Your task to perform on an android device: toggle data saver in the chrome app Image 0: 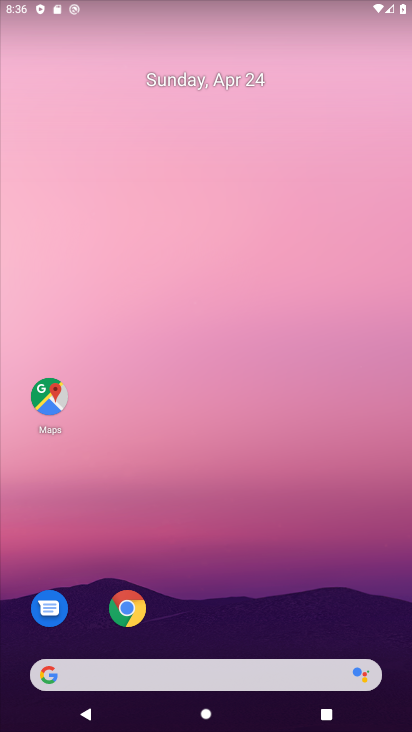
Step 0: click (121, 600)
Your task to perform on an android device: toggle data saver in the chrome app Image 1: 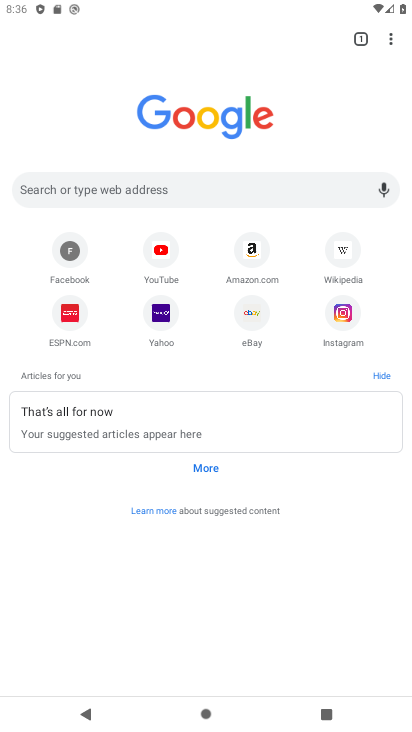
Step 1: drag from (390, 39) to (275, 322)
Your task to perform on an android device: toggle data saver in the chrome app Image 2: 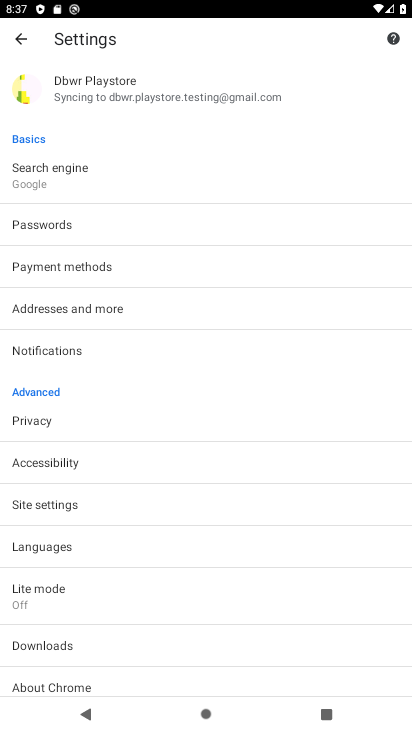
Step 2: click (65, 581)
Your task to perform on an android device: toggle data saver in the chrome app Image 3: 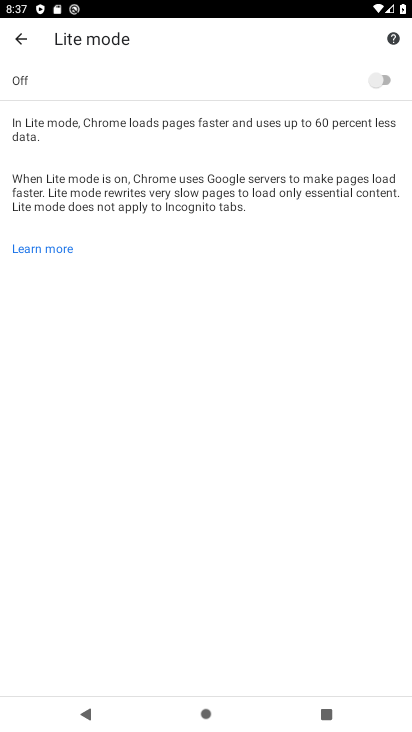
Step 3: click (385, 79)
Your task to perform on an android device: toggle data saver in the chrome app Image 4: 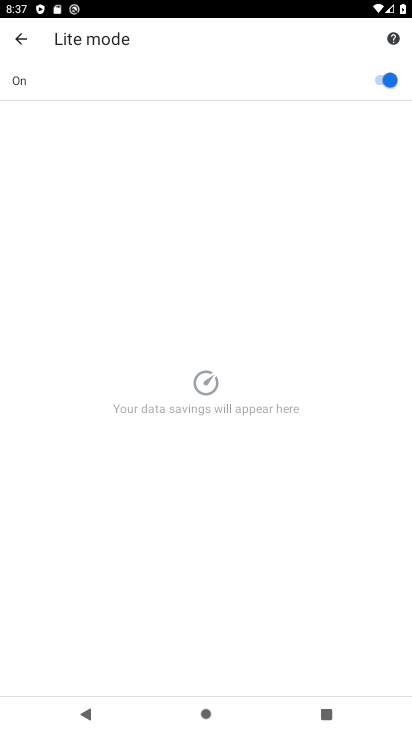
Step 4: task complete